Your task to perform on an android device: Go to Wikipedia Image 0: 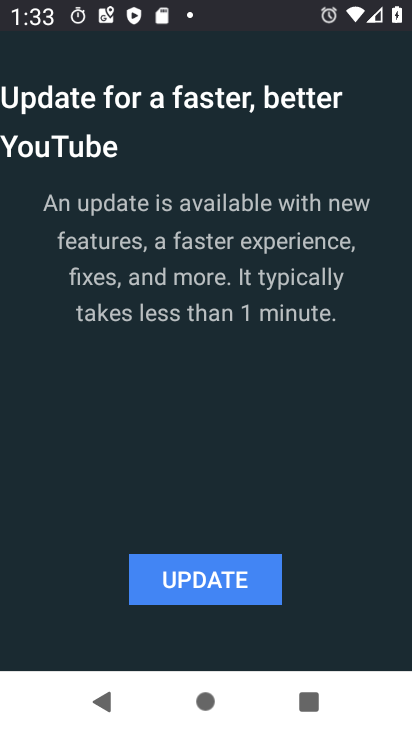
Step 0: press home button
Your task to perform on an android device: Go to Wikipedia Image 1: 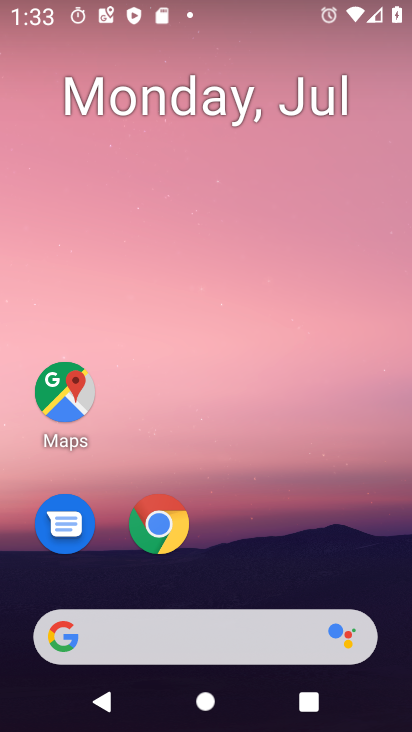
Step 1: click (61, 631)
Your task to perform on an android device: Go to Wikipedia Image 2: 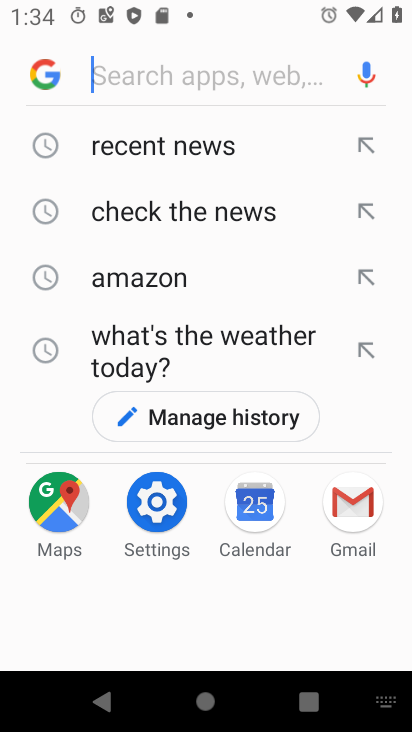
Step 2: type " Wikipedia"
Your task to perform on an android device: Go to Wikipedia Image 3: 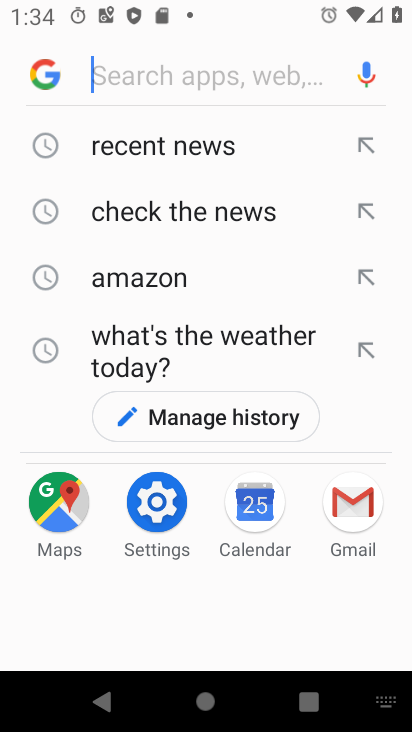
Step 3: click (169, 77)
Your task to perform on an android device: Go to Wikipedia Image 4: 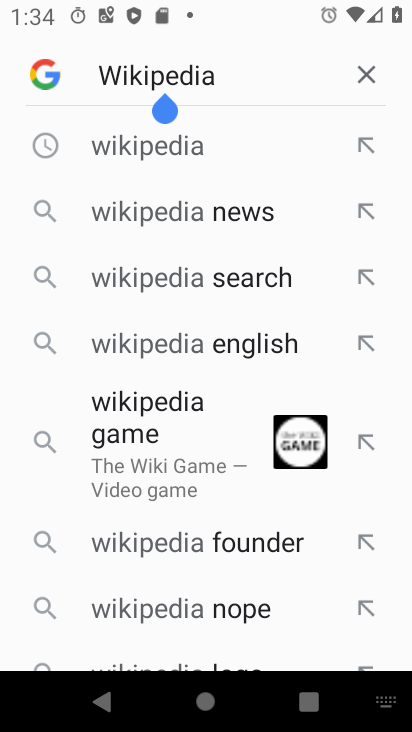
Step 4: click (157, 150)
Your task to perform on an android device: Go to Wikipedia Image 5: 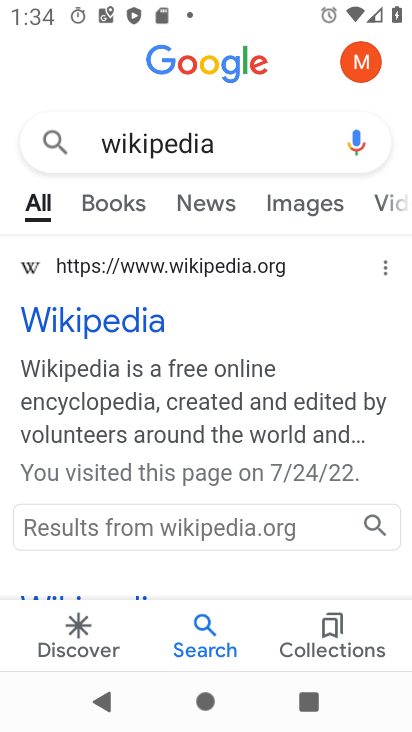
Step 5: click (95, 319)
Your task to perform on an android device: Go to Wikipedia Image 6: 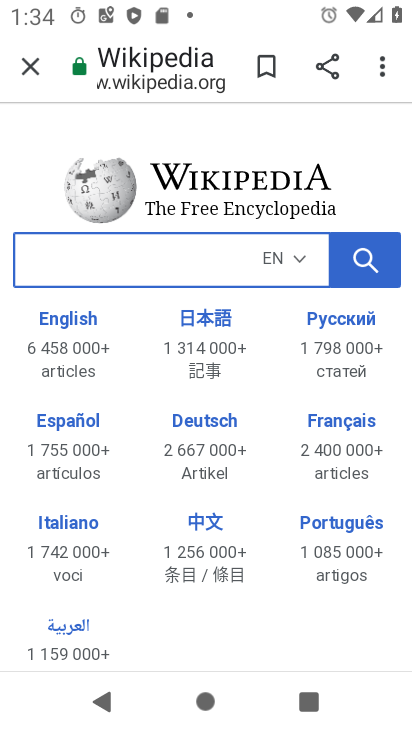
Step 6: task complete